Your task to perform on an android device: Go to settings Image 0: 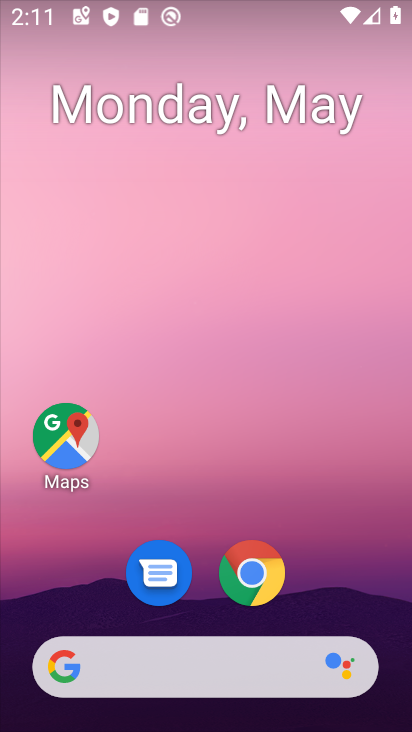
Step 0: drag from (168, 638) to (388, 8)
Your task to perform on an android device: Go to settings Image 1: 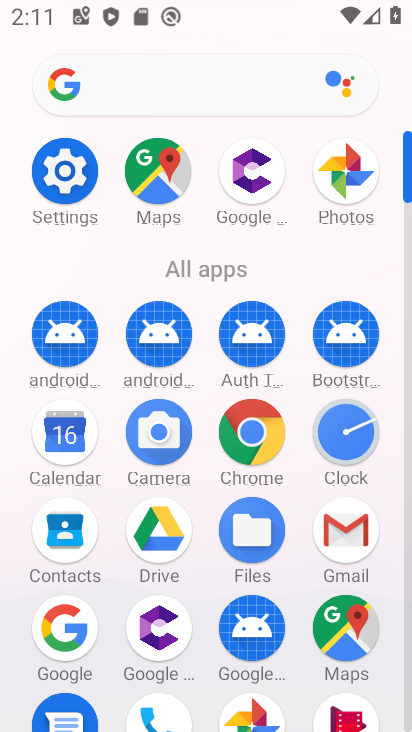
Step 1: drag from (199, 501) to (251, 381)
Your task to perform on an android device: Go to settings Image 2: 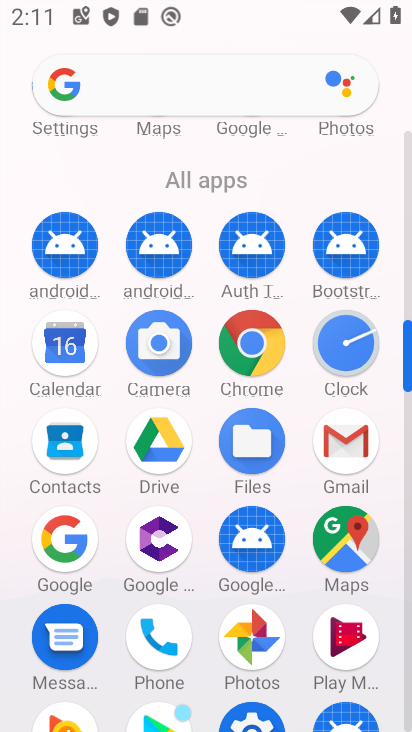
Step 2: drag from (178, 666) to (295, 357)
Your task to perform on an android device: Go to settings Image 3: 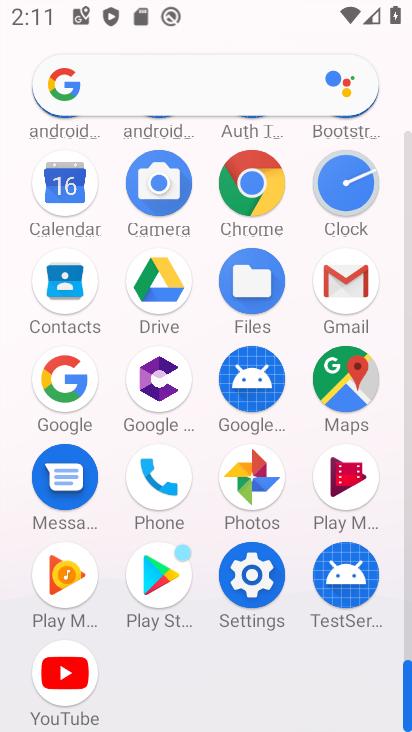
Step 3: click (261, 573)
Your task to perform on an android device: Go to settings Image 4: 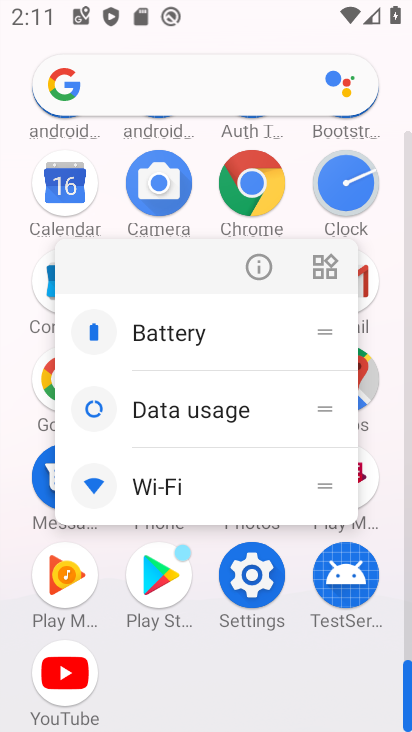
Step 4: click (261, 576)
Your task to perform on an android device: Go to settings Image 5: 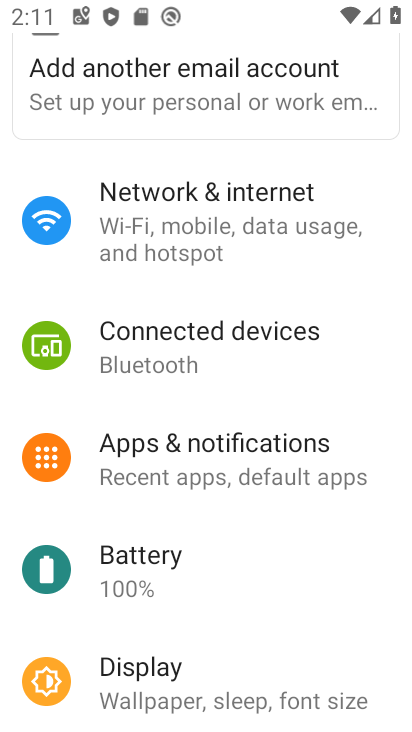
Step 5: task complete